Your task to perform on an android device: What's on my calendar today? Image 0: 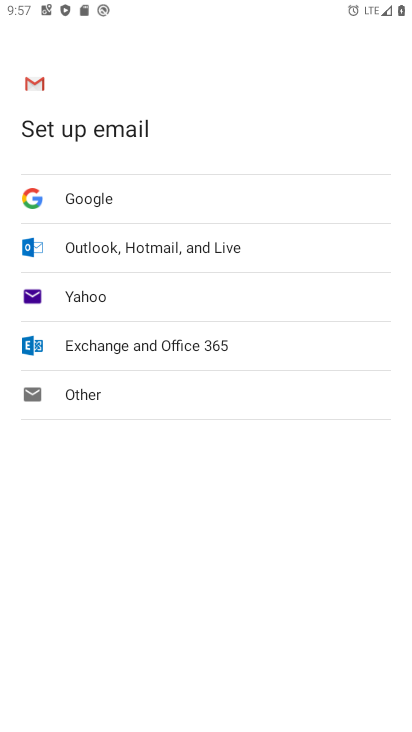
Step 0: press home button
Your task to perform on an android device: What's on my calendar today? Image 1: 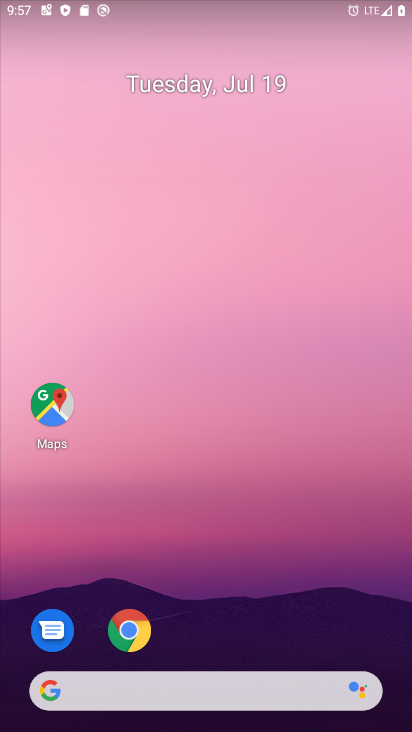
Step 1: drag from (216, 640) to (243, 101)
Your task to perform on an android device: What's on my calendar today? Image 2: 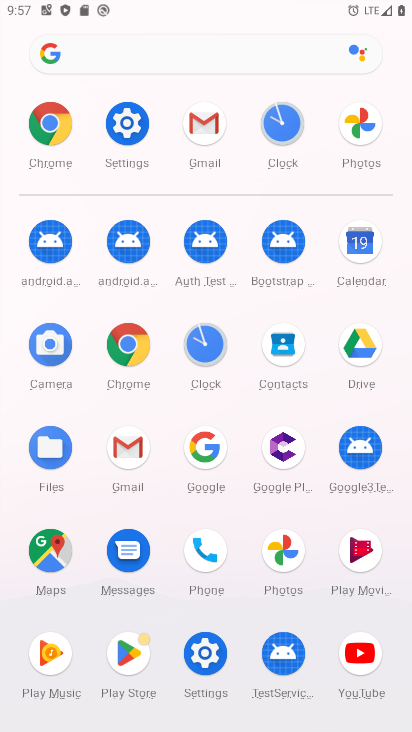
Step 2: click (358, 243)
Your task to perform on an android device: What's on my calendar today? Image 3: 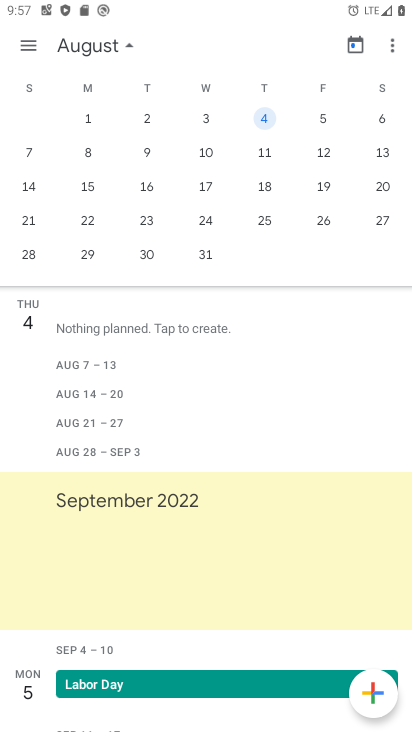
Step 3: drag from (46, 262) to (410, 224)
Your task to perform on an android device: What's on my calendar today? Image 4: 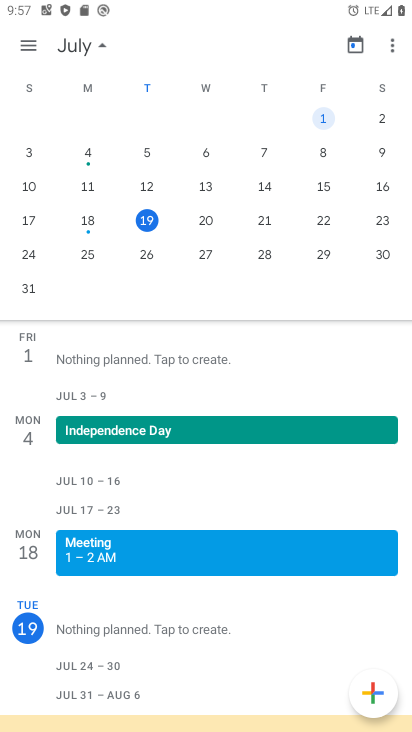
Step 4: click (151, 218)
Your task to perform on an android device: What's on my calendar today? Image 5: 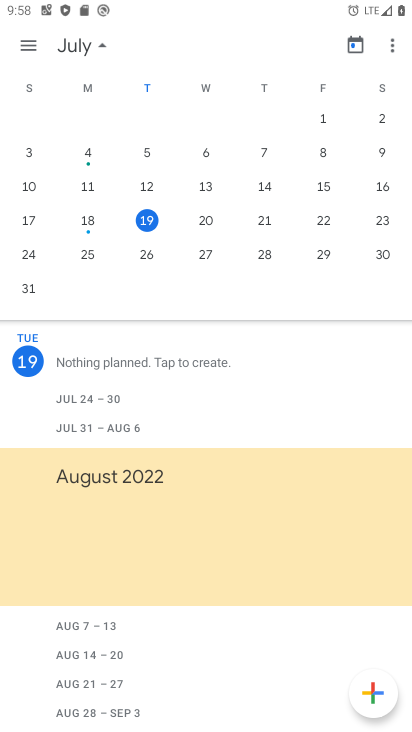
Step 5: task complete